Your task to perform on an android device: set an alarm Image 0: 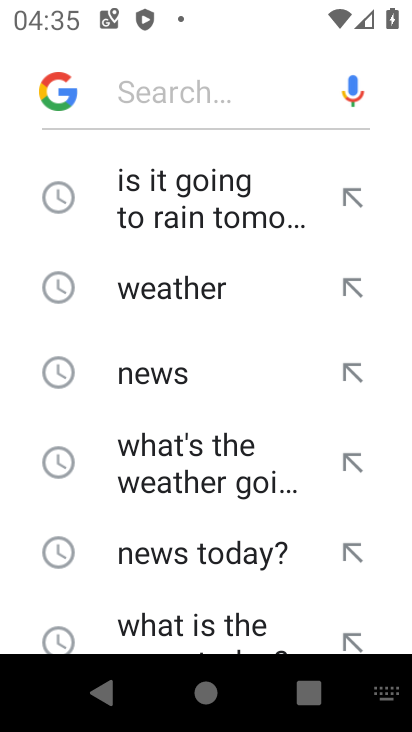
Step 0: press home button
Your task to perform on an android device: set an alarm Image 1: 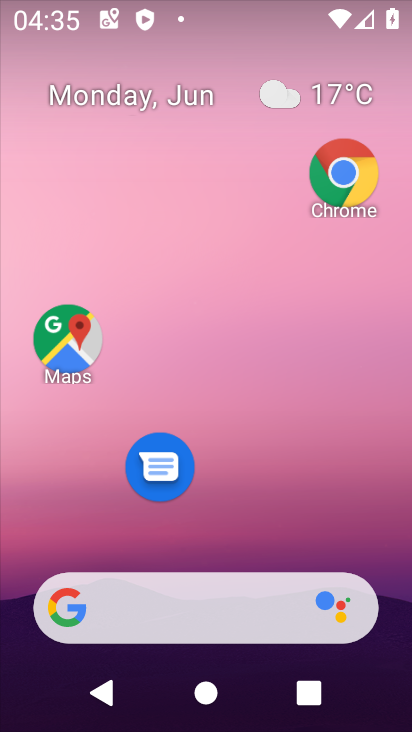
Step 1: drag from (210, 521) to (228, 74)
Your task to perform on an android device: set an alarm Image 2: 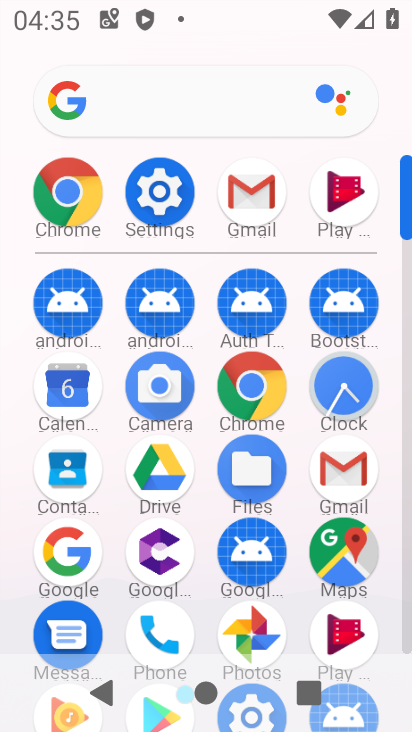
Step 2: click (364, 396)
Your task to perform on an android device: set an alarm Image 3: 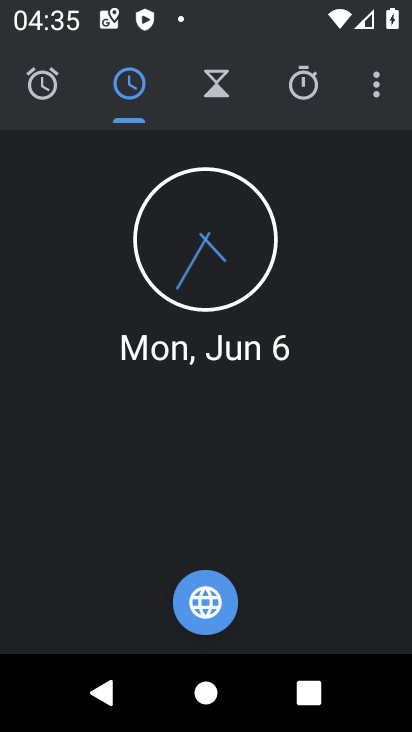
Step 3: click (50, 100)
Your task to perform on an android device: set an alarm Image 4: 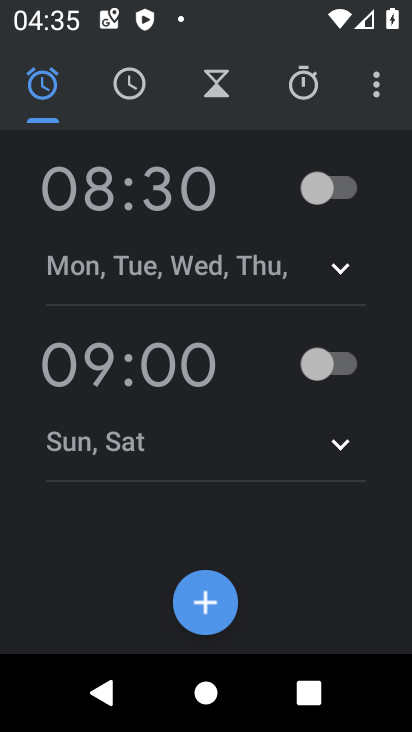
Step 4: click (364, 196)
Your task to perform on an android device: set an alarm Image 5: 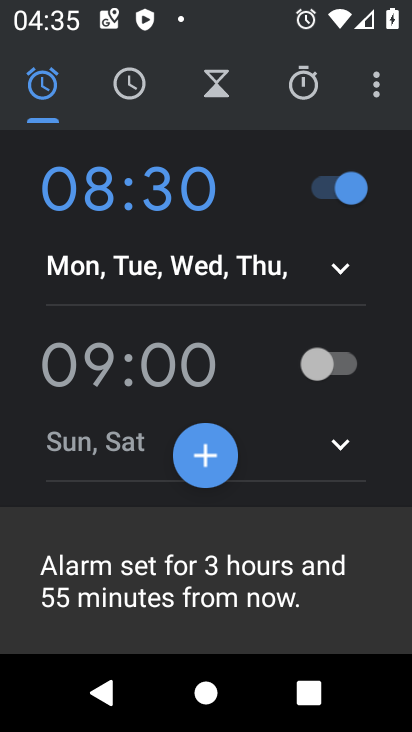
Step 5: click (344, 270)
Your task to perform on an android device: set an alarm Image 6: 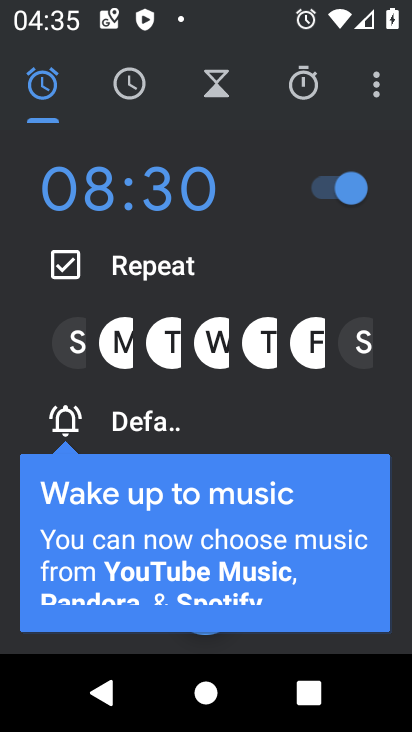
Step 6: click (287, 351)
Your task to perform on an android device: set an alarm Image 7: 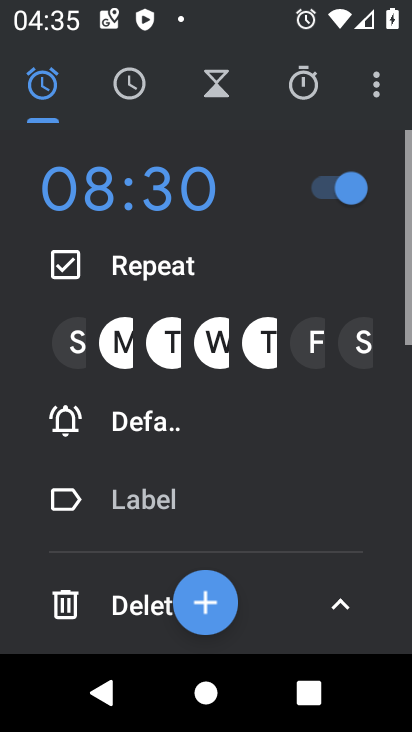
Step 7: click (262, 347)
Your task to perform on an android device: set an alarm Image 8: 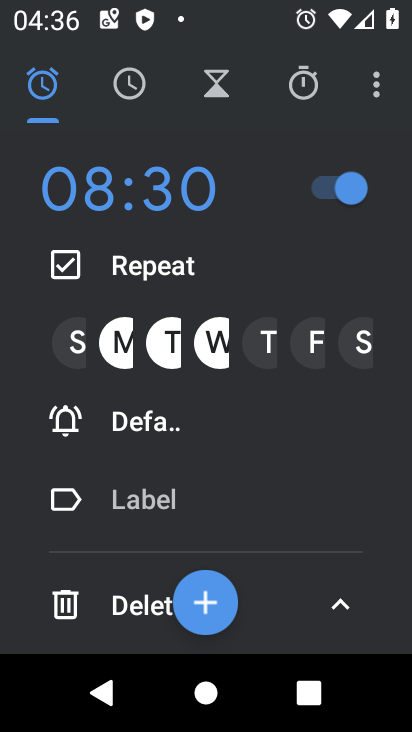
Step 8: task complete